Your task to perform on an android device: Open Chrome and go to settings Image 0: 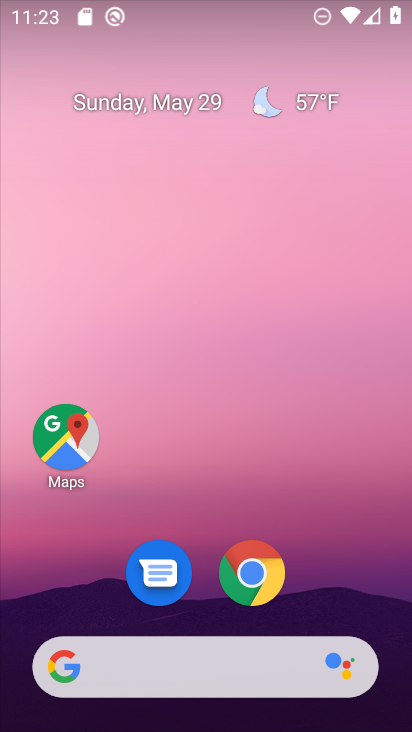
Step 0: drag from (278, 663) to (246, 105)
Your task to perform on an android device: Open Chrome and go to settings Image 1: 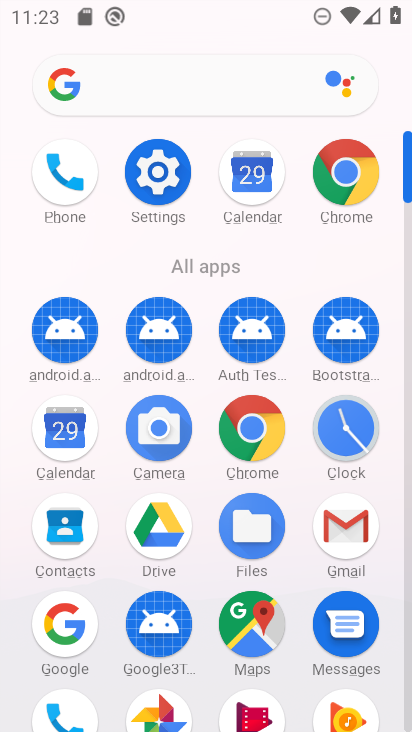
Step 1: click (159, 164)
Your task to perform on an android device: Open Chrome and go to settings Image 2: 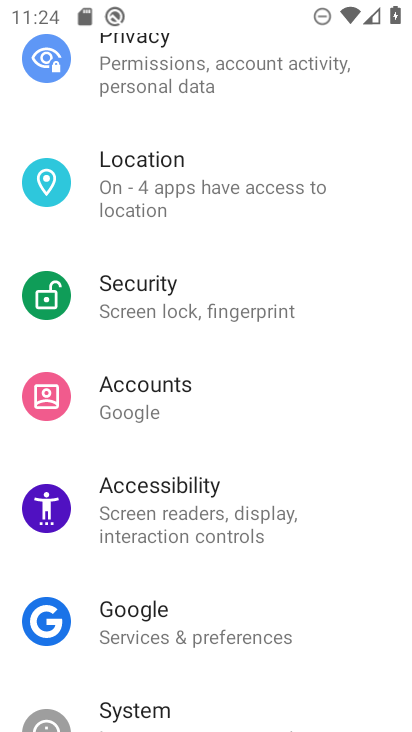
Step 2: press home button
Your task to perform on an android device: Open Chrome and go to settings Image 3: 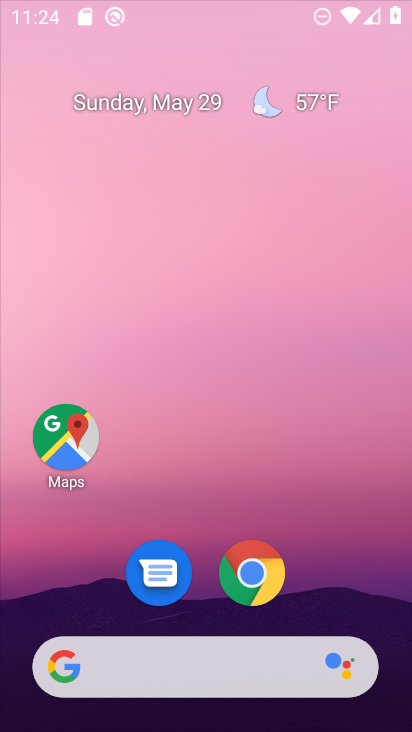
Step 3: drag from (141, 645) to (200, 111)
Your task to perform on an android device: Open Chrome and go to settings Image 4: 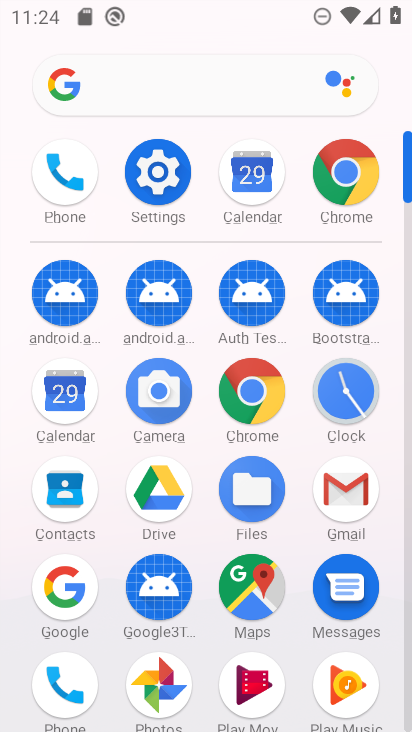
Step 4: click (252, 395)
Your task to perform on an android device: Open Chrome and go to settings Image 5: 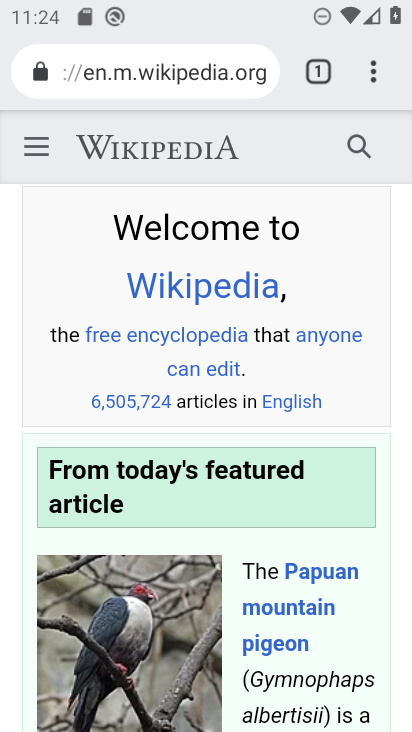
Step 5: task complete